Your task to perform on an android device: Do I have any events tomorrow? Image 0: 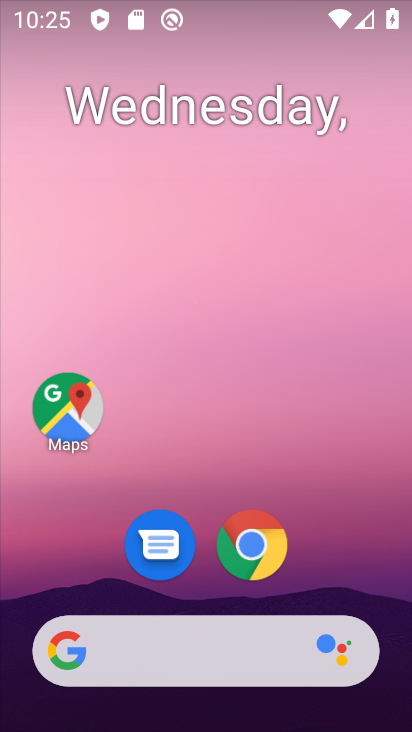
Step 0: drag from (204, 583) to (209, 244)
Your task to perform on an android device: Do I have any events tomorrow? Image 1: 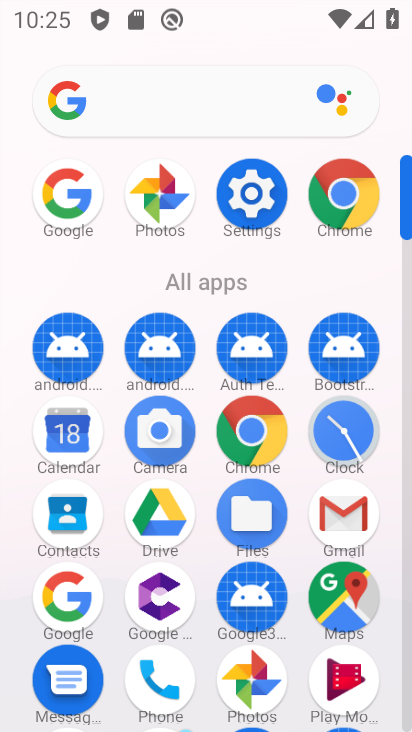
Step 1: click (69, 434)
Your task to perform on an android device: Do I have any events tomorrow? Image 2: 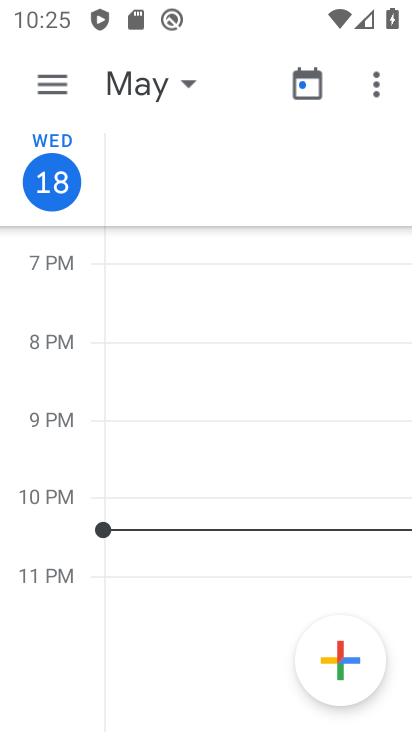
Step 2: click (173, 75)
Your task to perform on an android device: Do I have any events tomorrow? Image 3: 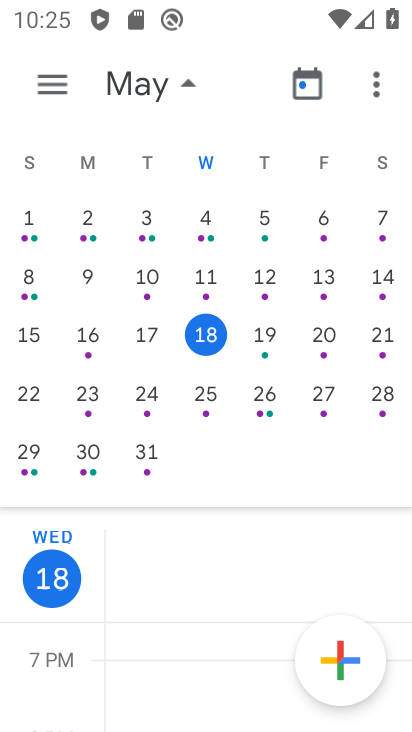
Step 3: click (262, 338)
Your task to perform on an android device: Do I have any events tomorrow? Image 4: 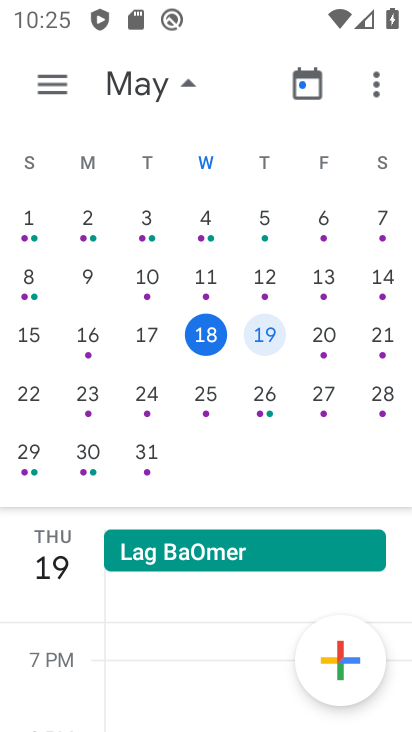
Step 4: task complete